Your task to perform on an android device: Open location settings Image 0: 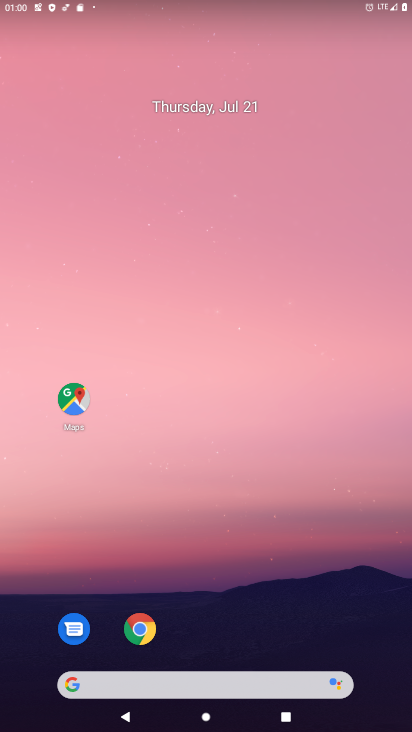
Step 0: drag from (360, 604) to (197, 77)
Your task to perform on an android device: Open location settings Image 1: 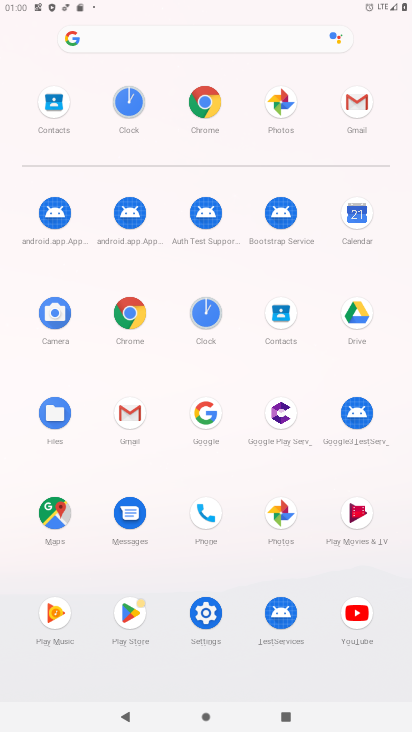
Step 1: click (203, 618)
Your task to perform on an android device: Open location settings Image 2: 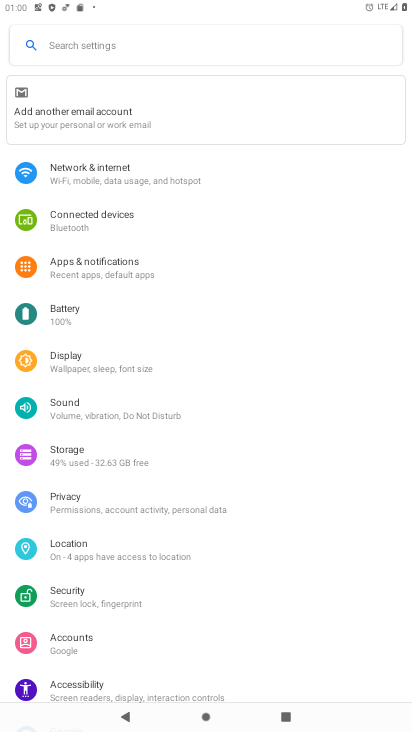
Step 2: click (92, 559)
Your task to perform on an android device: Open location settings Image 3: 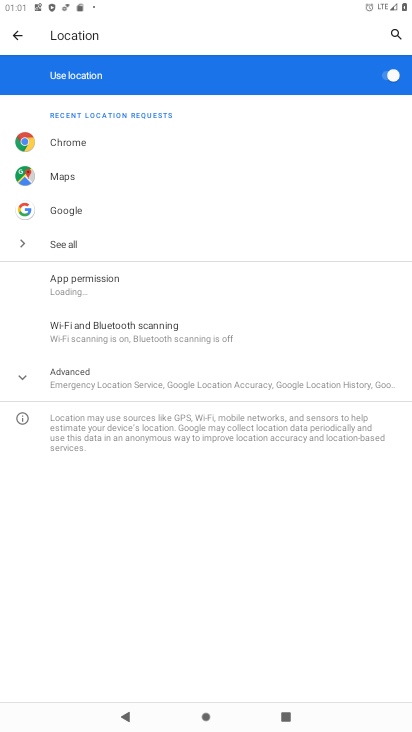
Step 3: task complete